Your task to perform on an android device: Open calendar and show me the first week of next month Image 0: 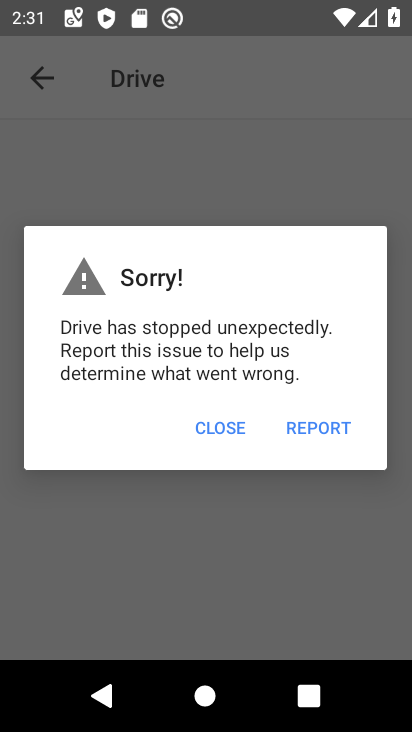
Step 0: press home button
Your task to perform on an android device: Open calendar and show me the first week of next month Image 1: 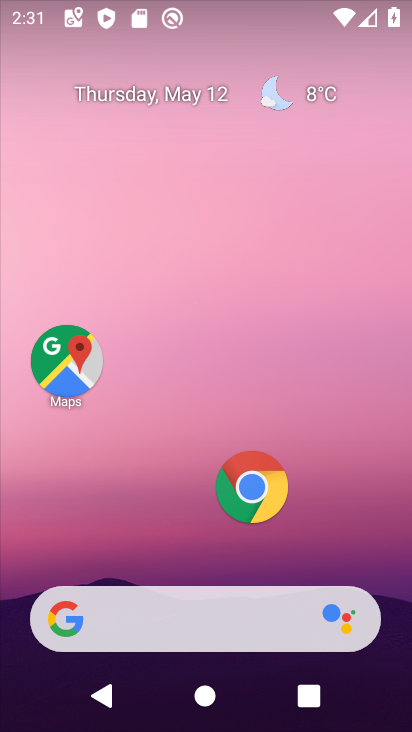
Step 1: drag from (157, 532) to (189, 42)
Your task to perform on an android device: Open calendar and show me the first week of next month Image 2: 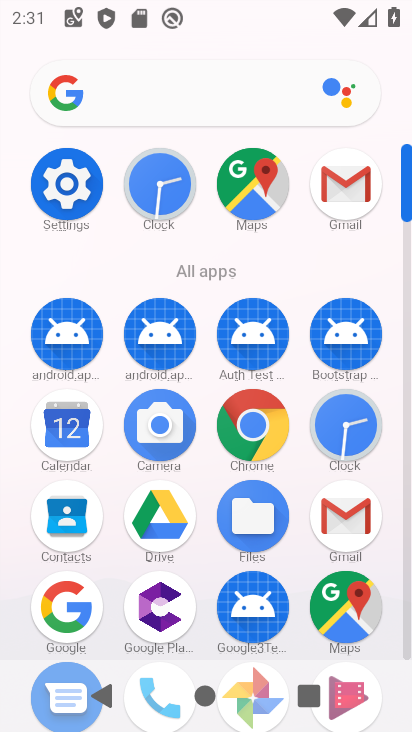
Step 2: click (76, 420)
Your task to perform on an android device: Open calendar and show me the first week of next month Image 3: 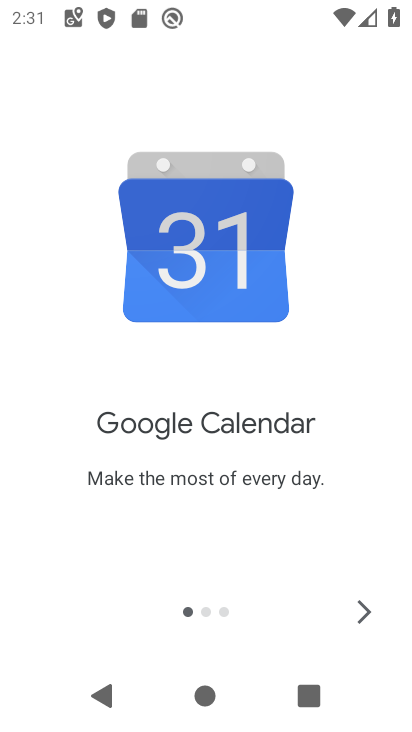
Step 3: click (360, 618)
Your task to perform on an android device: Open calendar and show me the first week of next month Image 4: 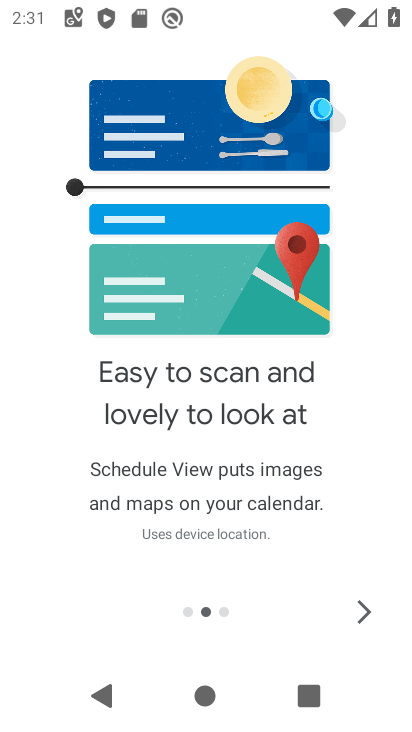
Step 4: click (360, 618)
Your task to perform on an android device: Open calendar and show me the first week of next month Image 5: 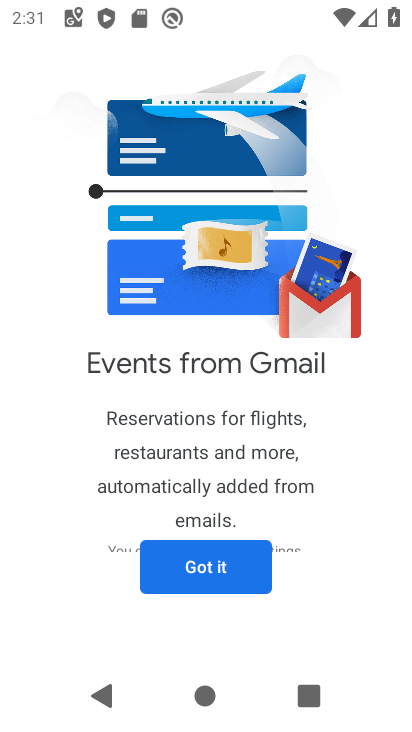
Step 5: click (360, 618)
Your task to perform on an android device: Open calendar and show me the first week of next month Image 6: 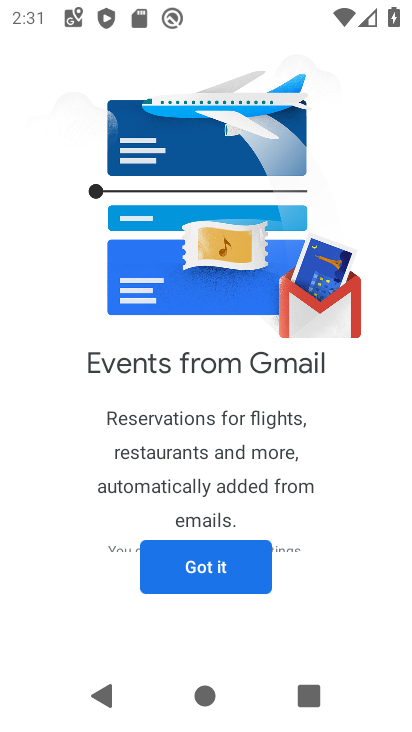
Step 6: click (177, 565)
Your task to perform on an android device: Open calendar and show me the first week of next month Image 7: 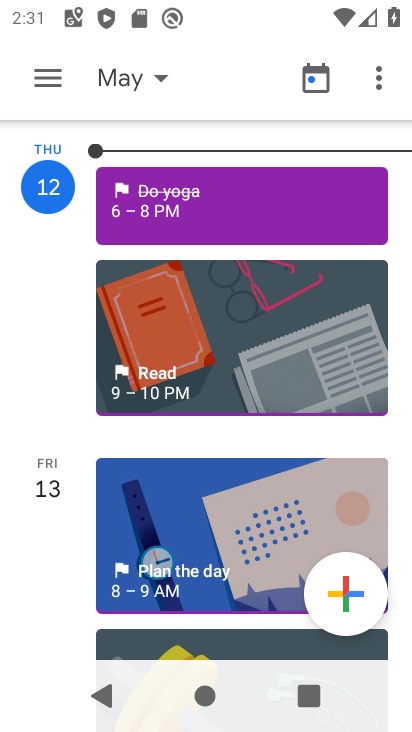
Step 7: click (52, 87)
Your task to perform on an android device: Open calendar and show me the first week of next month Image 8: 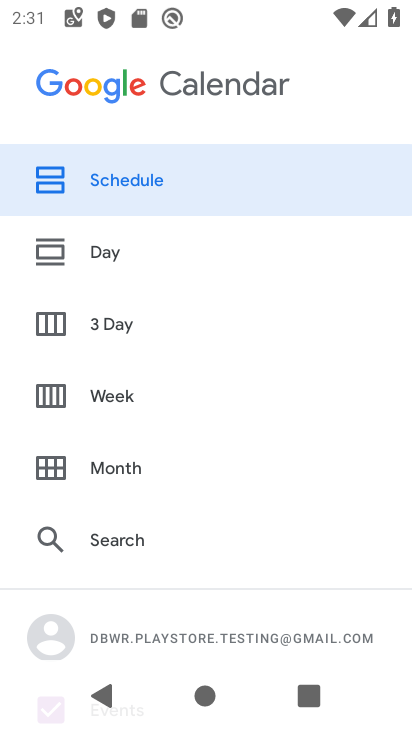
Step 8: click (119, 386)
Your task to perform on an android device: Open calendar and show me the first week of next month Image 9: 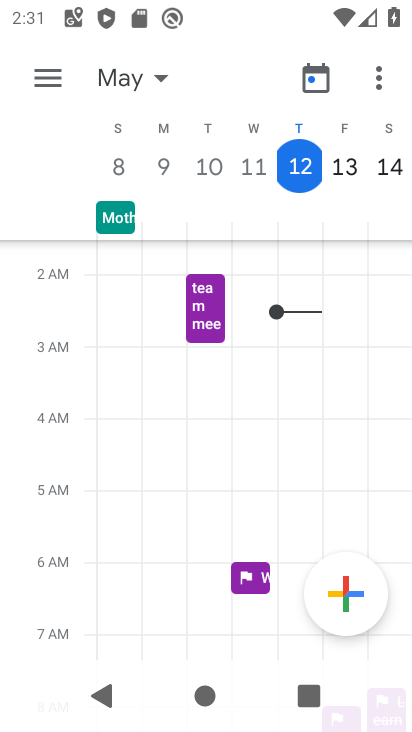
Step 9: click (154, 78)
Your task to perform on an android device: Open calendar and show me the first week of next month Image 10: 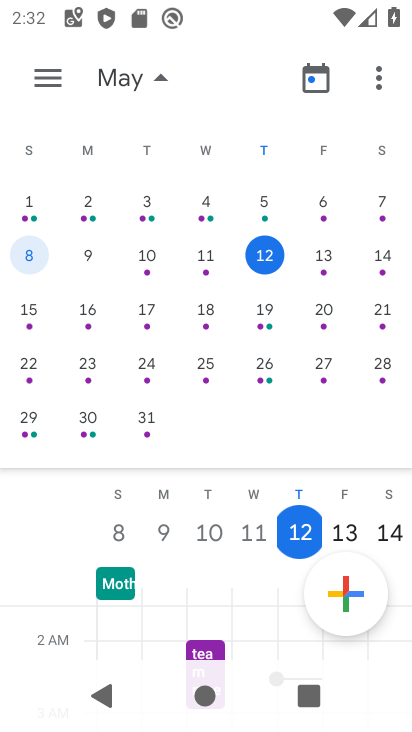
Step 10: drag from (227, 283) to (22, 265)
Your task to perform on an android device: Open calendar and show me the first week of next month Image 11: 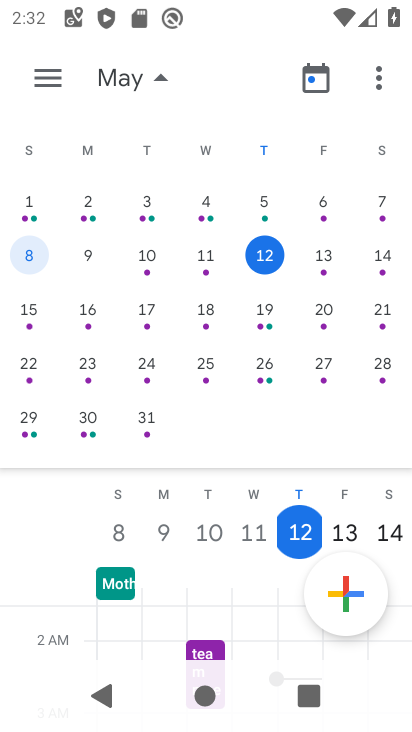
Step 11: drag from (400, 340) to (43, 274)
Your task to perform on an android device: Open calendar and show me the first week of next month Image 12: 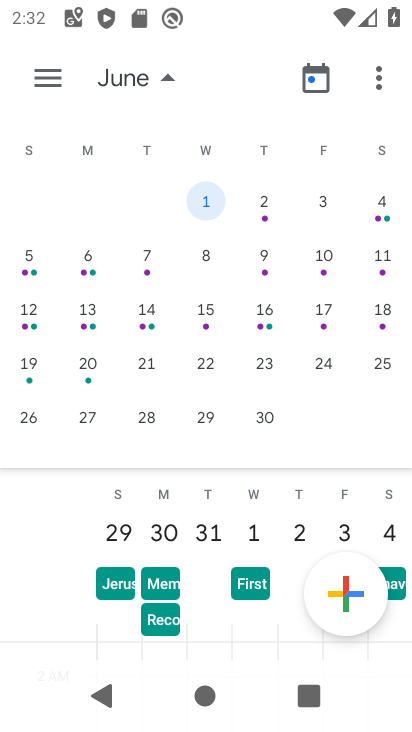
Step 12: click (156, 78)
Your task to perform on an android device: Open calendar and show me the first week of next month Image 13: 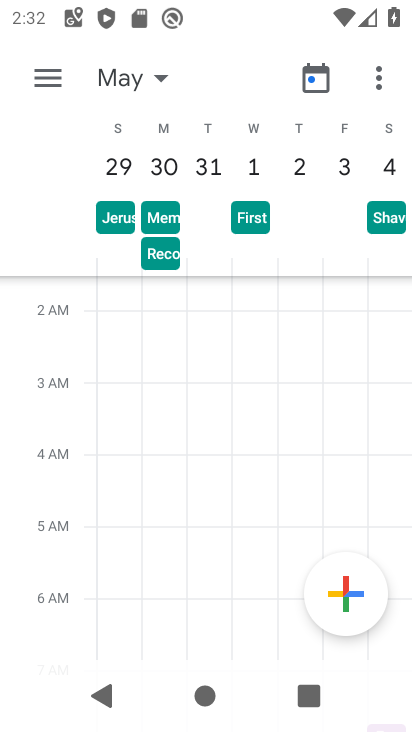
Step 13: task complete